Your task to perform on an android device: check battery use Image 0: 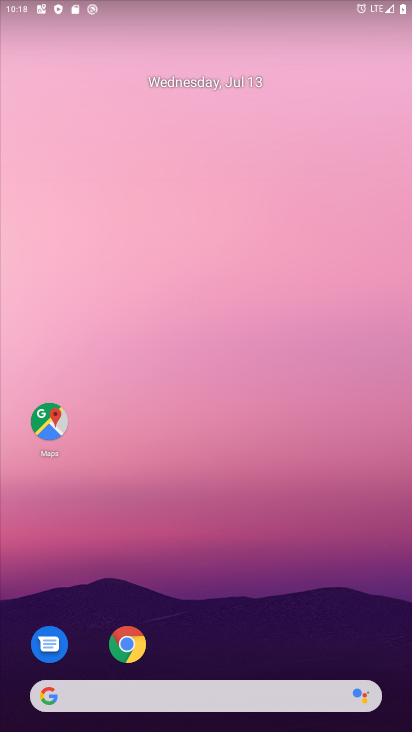
Step 0: drag from (221, 725) to (228, 196)
Your task to perform on an android device: check battery use Image 1: 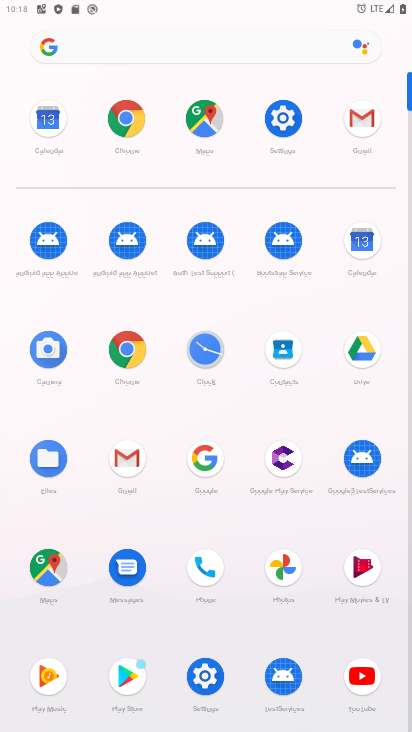
Step 1: click (291, 116)
Your task to perform on an android device: check battery use Image 2: 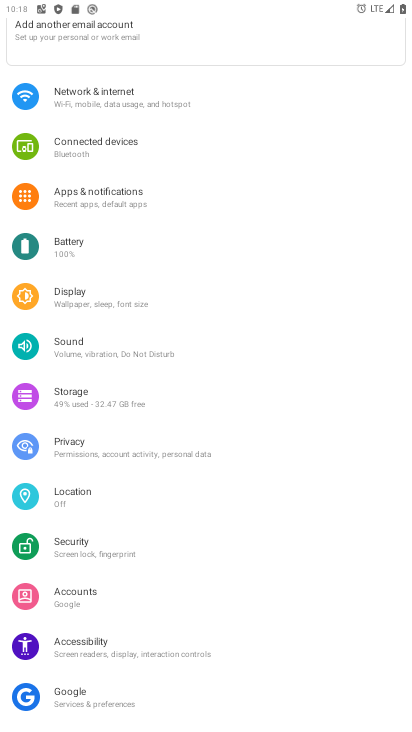
Step 2: click (67, 244)
Your task to perform on an android device: check battery use Image 3: 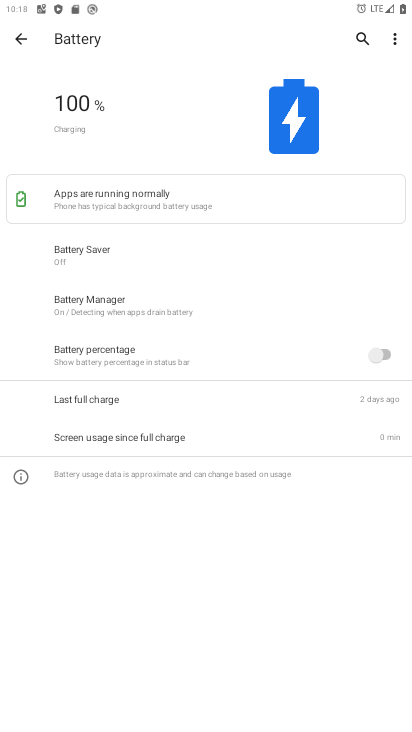
Step 3: click (394, 43)
Your task to perform on an android device: check battery use Image 4: 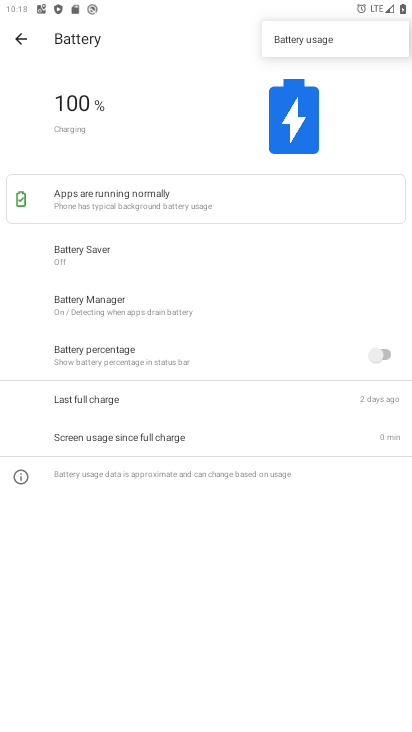
Step 4: click (320, 31)
Your task to perform on an android device: check battery use Image 5: 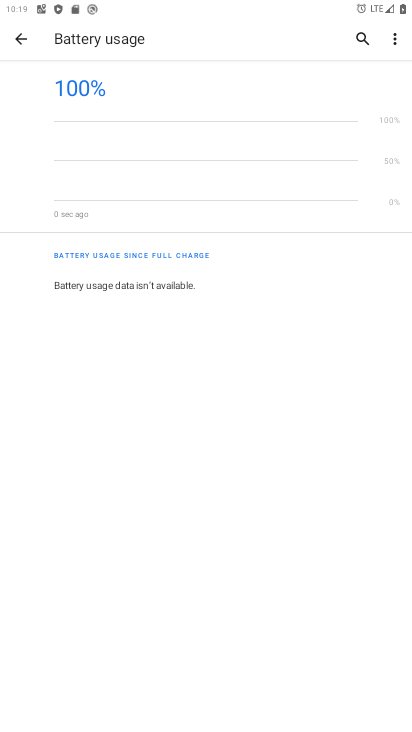
Step 5: task complete